Your task to perform on an android device: turn off location history Image 0: 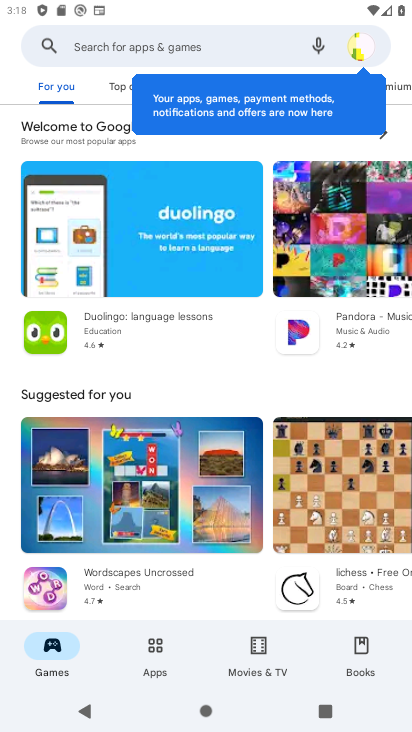
Step 0: press home button
Your task to perform on an android device: turn off location history Image 1: 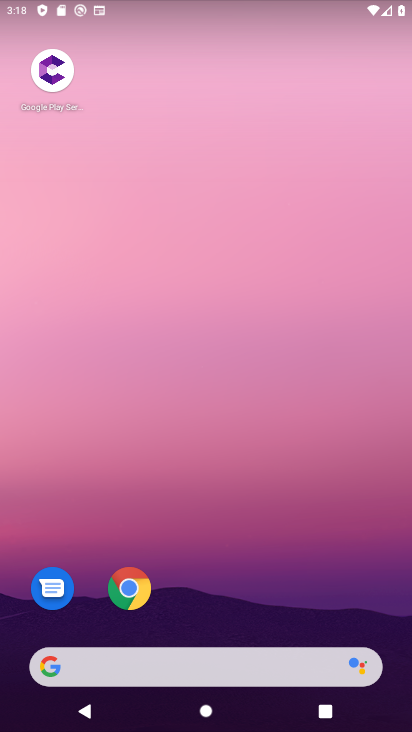
Step 1: drag from (245, 517) to (267, 8)
Your task to perform on an android device: turn off location history Image 2: 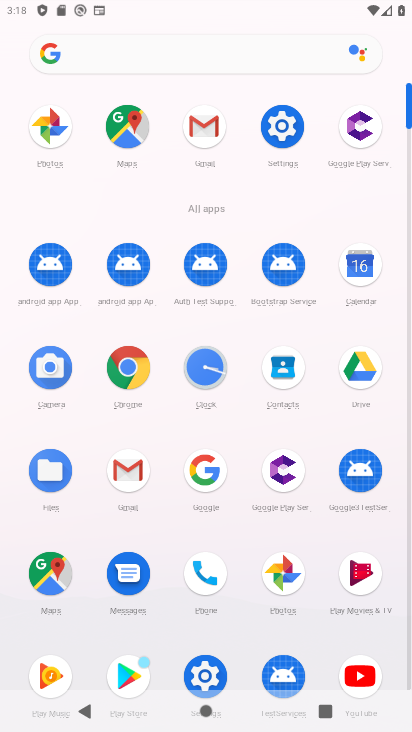
Step 2: click (126, 130)
Your task to perform on an android device: turn off location history Image 3: 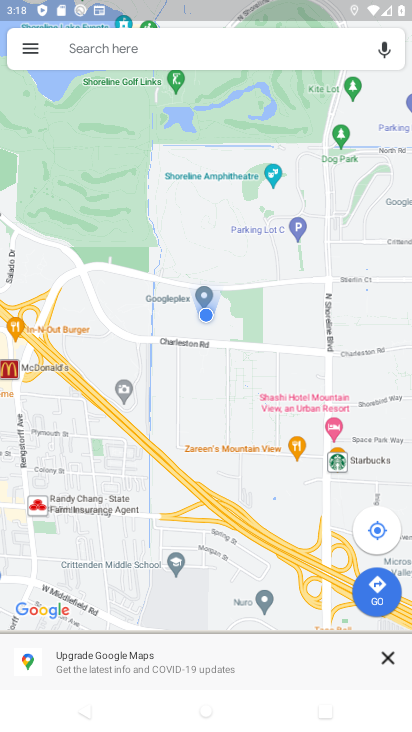
Step 3: click (24, 53)
Your task to perform on an android device: turn off location history Image 4: 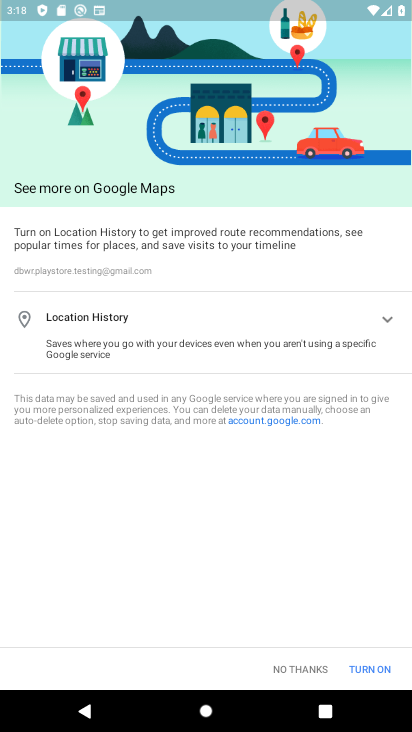
Step 4: click (281, 674)
Your task to perform on an android device: turn off location history Image 5: 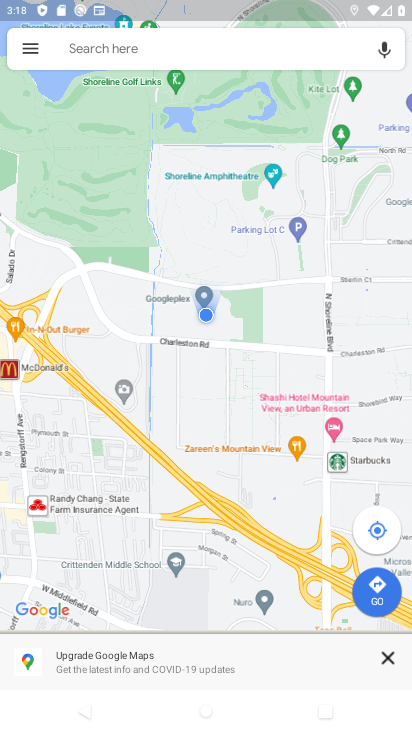
Step 5: click (29, 51)
Your task to perform on an android device: turn off location history Image 6: 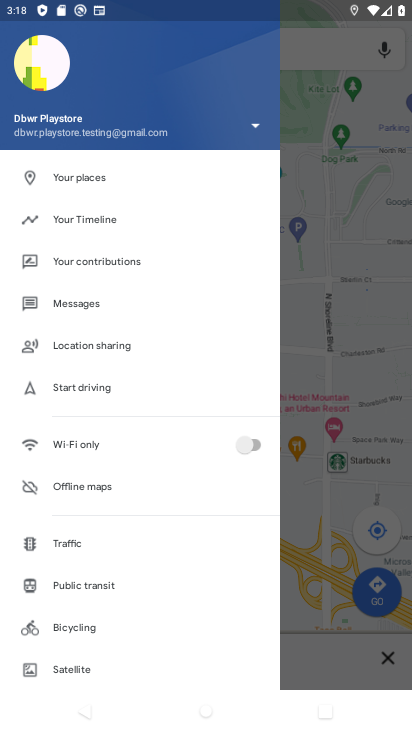
Step 6: click (78, 219)
Your task to perform on an android device: turn off location history Image 7: 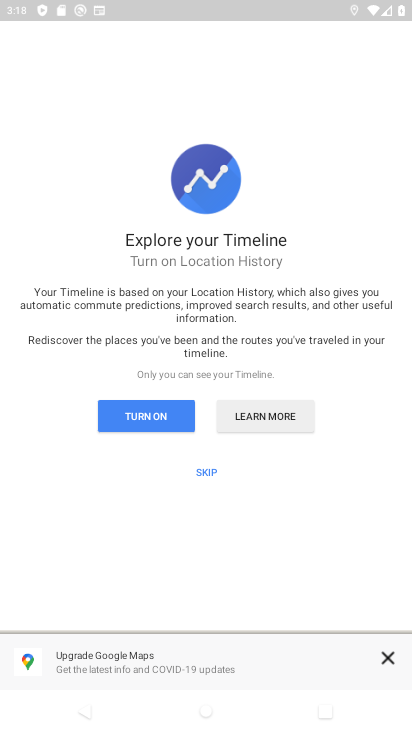
Step 7: click (206, 471)
Your task to perform on an android device: turn off location history Image 8: 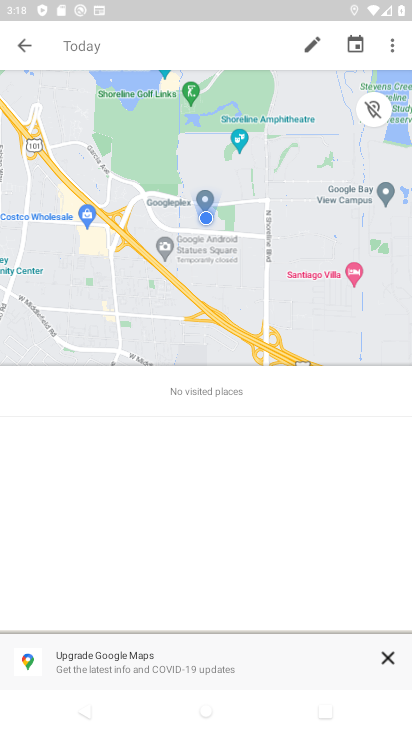
Step 8: click (397, 39)
Your task to perform on an android device: turn off location history Image 9: 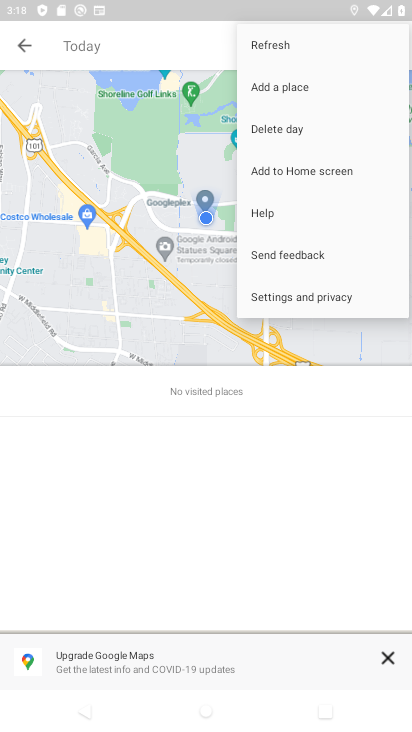
Step 9: click (297, 289)
Your task to perform on an android device: turn off location history Image 10: 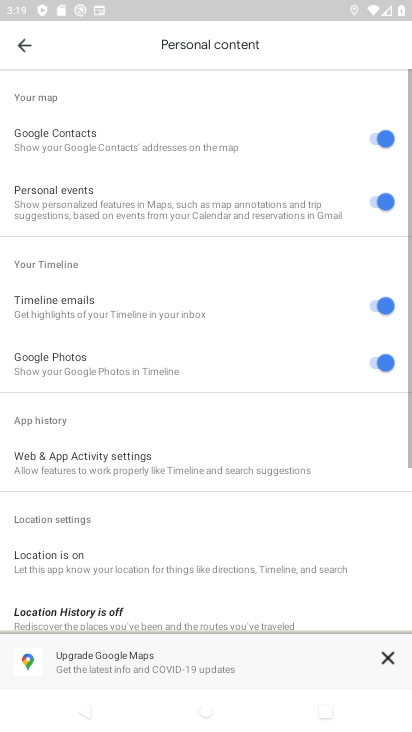
Step 10: drag from (162, 535) to (207, 234)
Your task to perform on an android device: turn off location history Image 11: 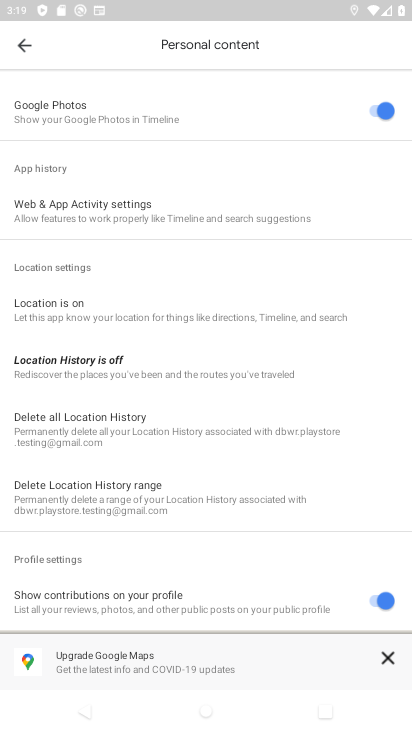
Step 11: click (99, 357)
Your task to perform on an android device: turn off location history Image 12: 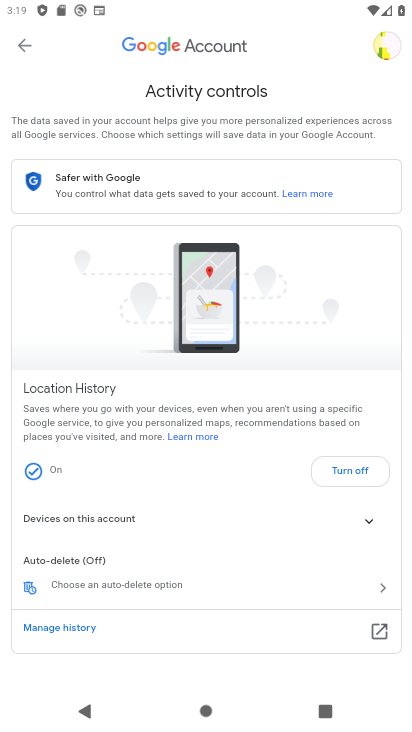
Step 12: drag from (224, 492) to (247, 360)
Your task to perform on an android device: turn off location history Image 13: 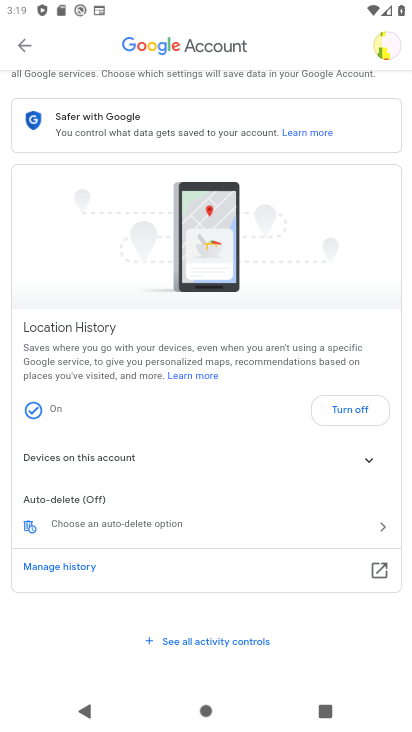
Step 13: click (352, 405)
Your task to perform on an android device: turn off location history Image 14: 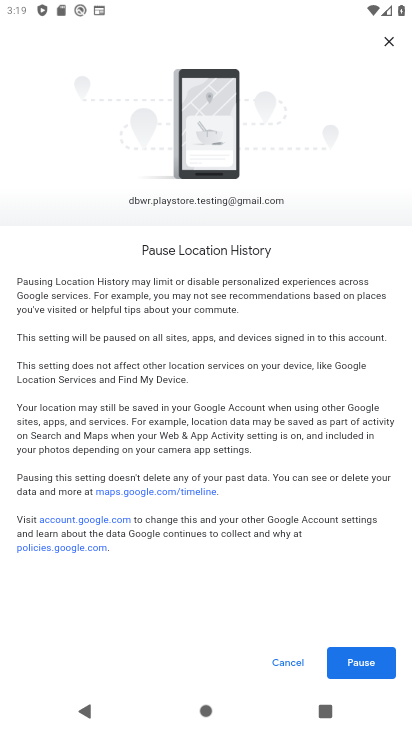
Step 14: click (356, 671)
Your task to perform on an android device: turn off location history Image 15: 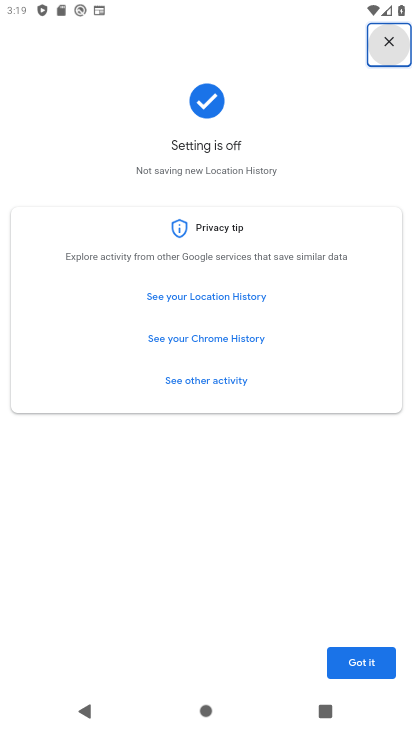
Step 15: click (349, 668)
Your task to perform on an android device: turn off location history Image 16: 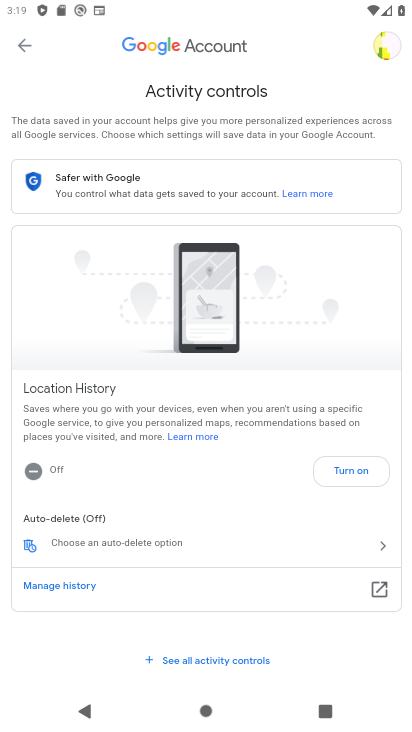
Step 16: task complete